Your task to perform on an android device: uninstall "Google Duo" Image 0: 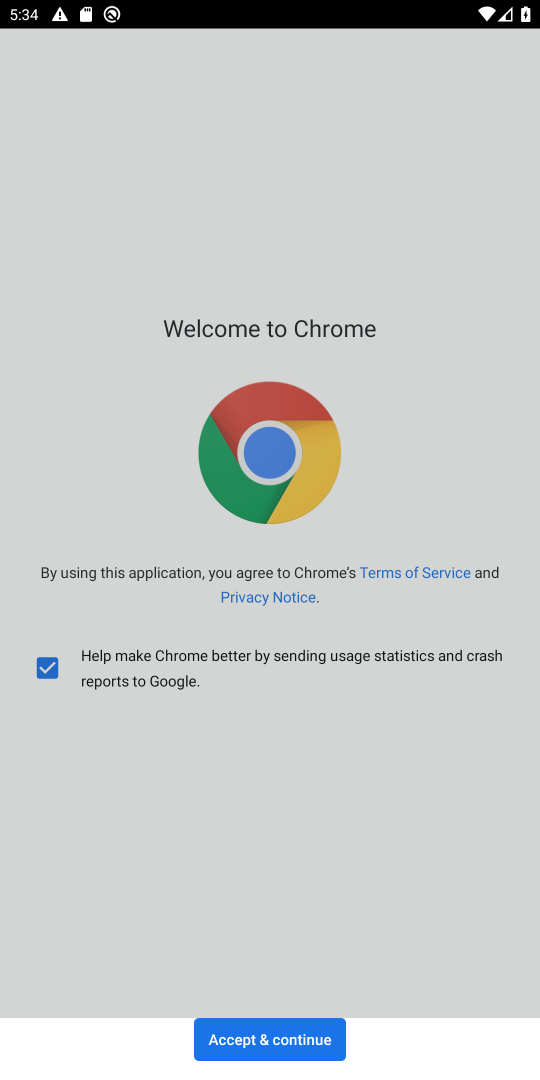
Step 0: press home button
Your task to perform on an android device: uninstall "Google Duo" Image 1: 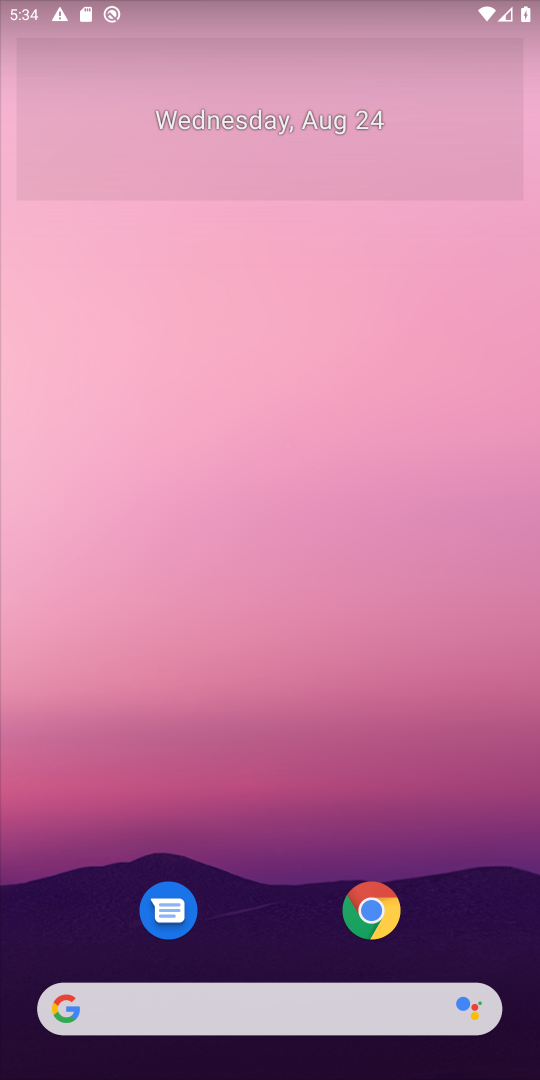
Step 1: drag from (258, 864) to (258, 73)
Your task to perform on an android device: uninstall "Google Duo" Image 2: 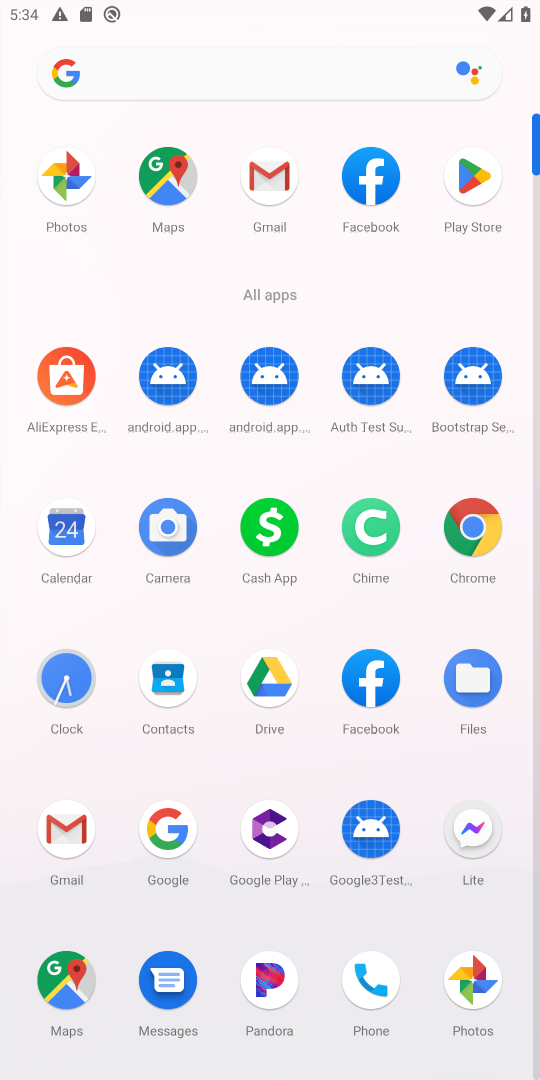
Step 2: click (481, 178)
Your task to perform on an android device: uninstall "Google Duo" Image 3: 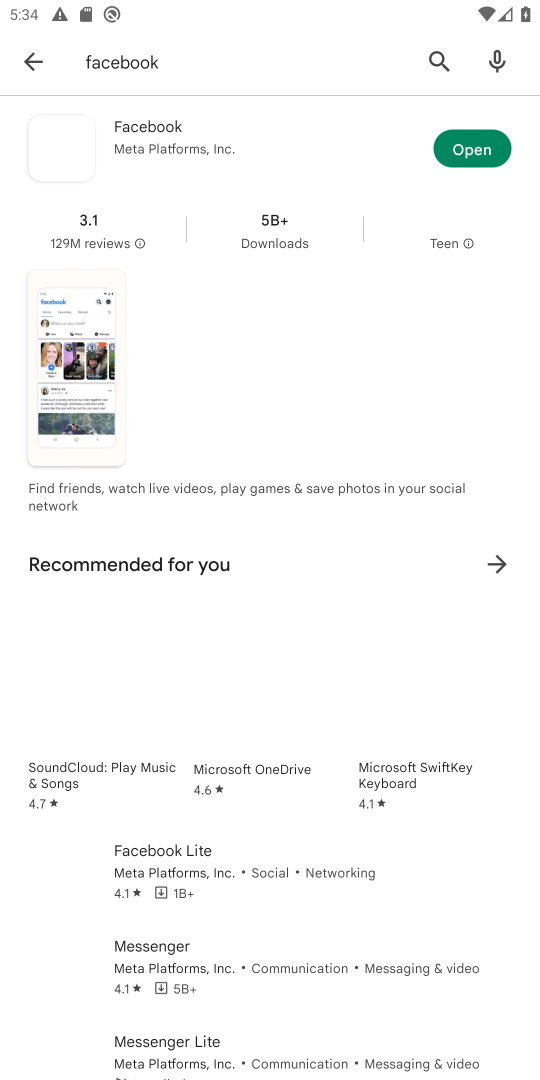
Step 3: click (445, 59)
Your task to perform on an android device: uninstall "Google Duo" Image 4: 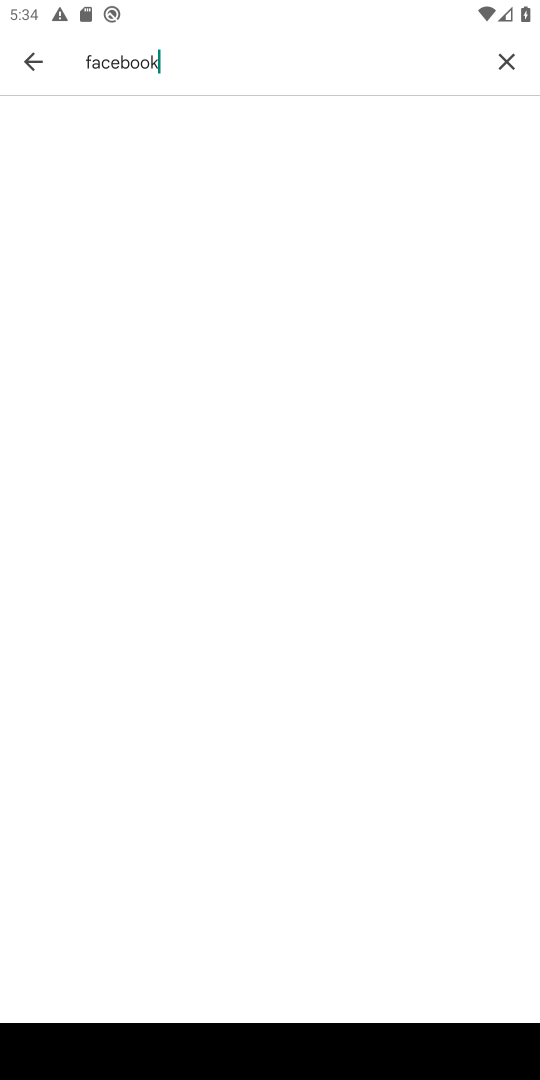
Step 4: click (509, 61)
Your task to perform on an android device: uninstall "Google Duo" Image 5: 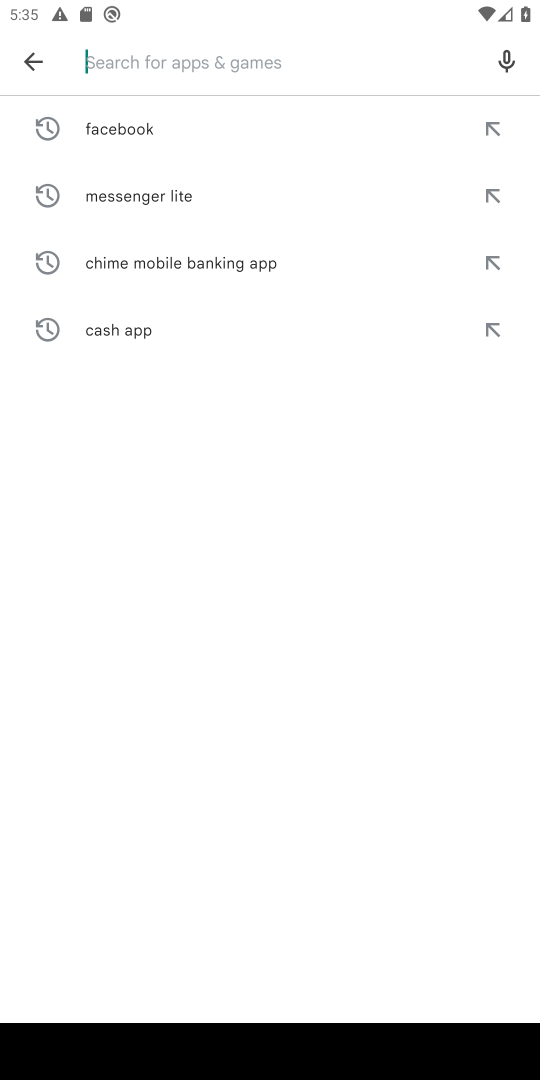
Step 5: type "google duo"
Your task to perform on an android device: uninstall "Google Duo" Image 6: 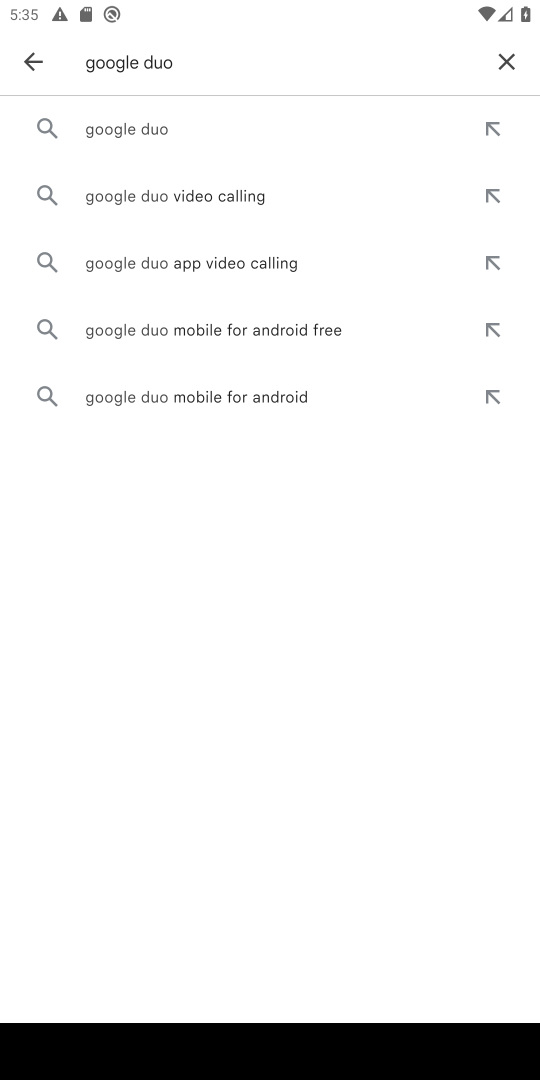
Step 6: click (177, 132)
Your task to perform on an android device: uninstall "Google Duo" Image 7: 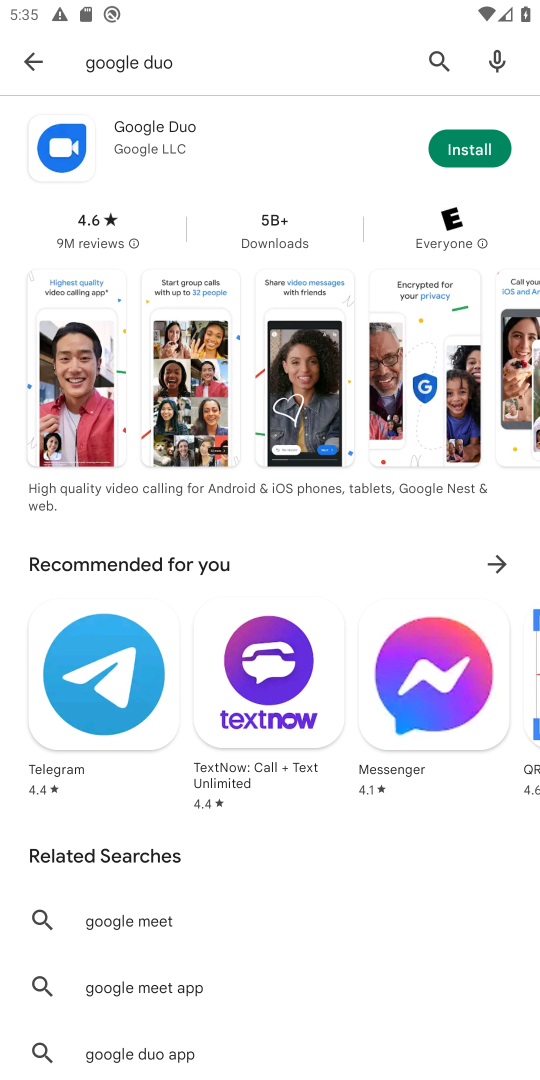
Step 7: click (184, 158)
Your task to perform on an android device: uninstall "Google Duo" Image 8: 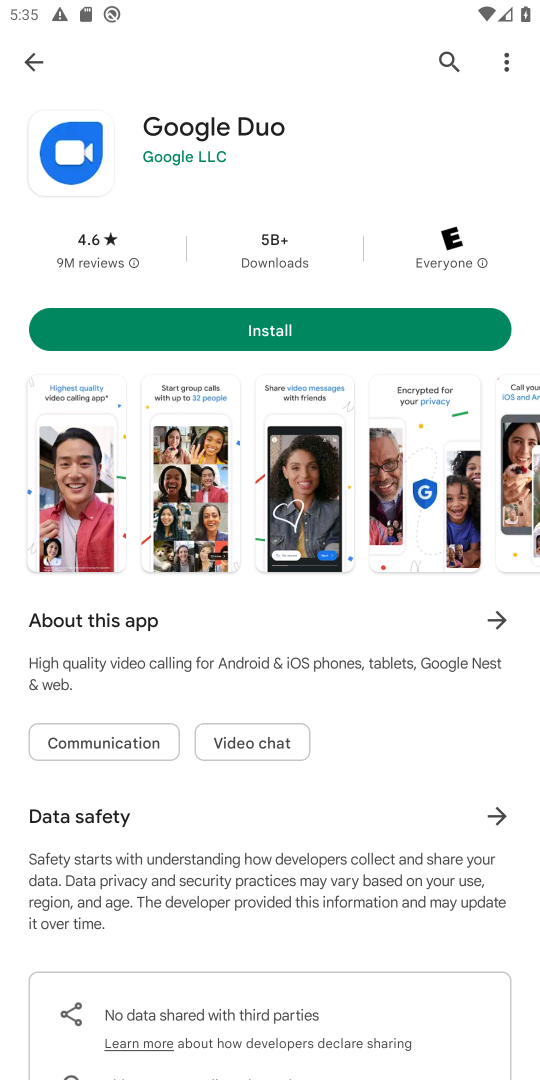
Step 8: task complete